Your task to perform on an android device: turn on improve location accuracy Image 0: 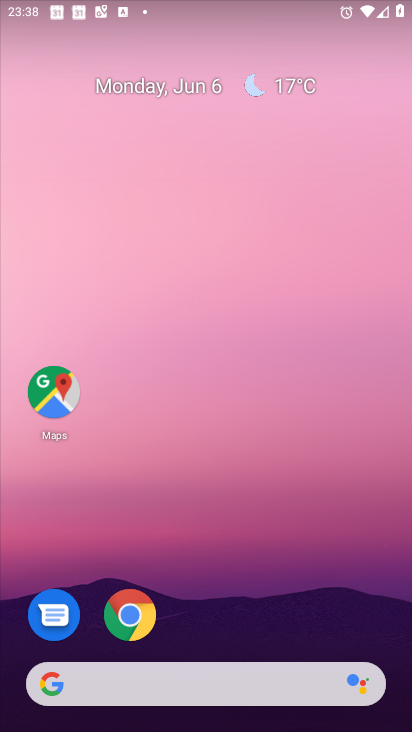
Step 0: drag from (403, 712) to (353, 196)
Your task to perform on an android device: turn on improve location accuracy Image 1: 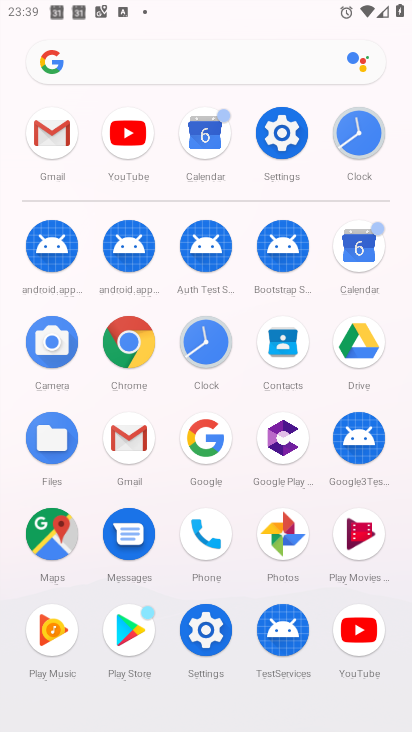
Step 1: click (280, 132)
Your task to perform on an android device: turn on improve location accuracy Image 2: 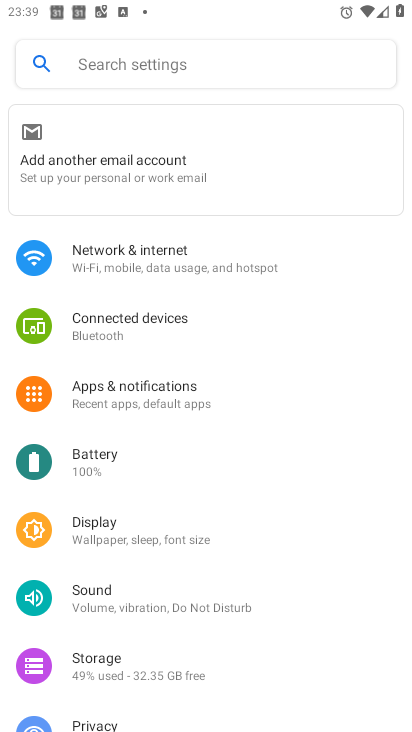
Step 2: drag from (271, 686) to (269, 255)
Your task to perform on an android device: turn on improve location accuracy Image 3: 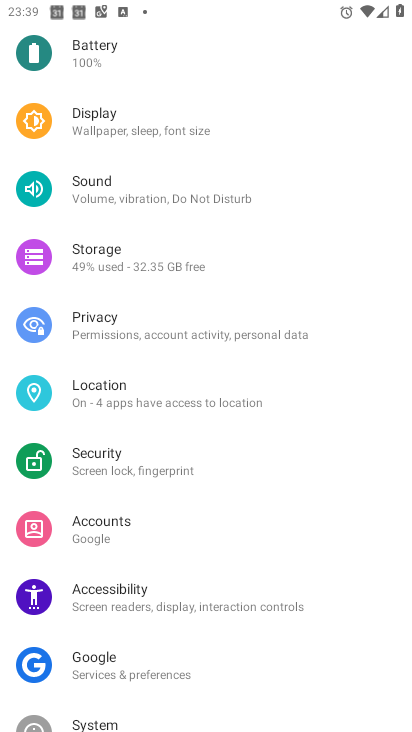
Step 3: click (103, 399)
Your task to perform on an android device: turn on improve location accuracy Image 4: 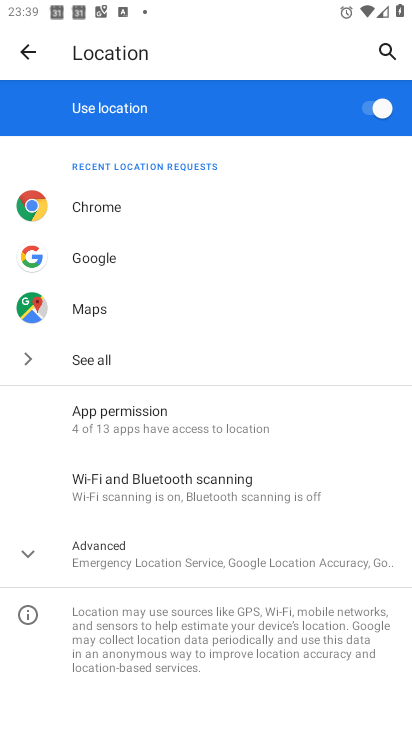
Step 4: task complete